Your task to perform on an android device: Go to CNN.com Image 0: 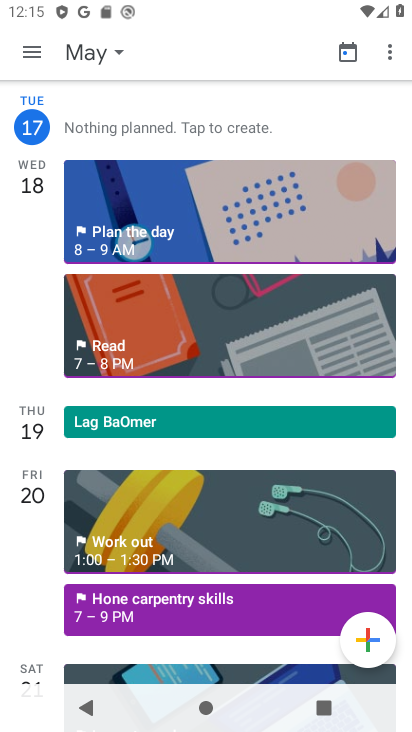
Step 0: press home button
Your task to perform on an android device: Go to CNN.com Image 1: 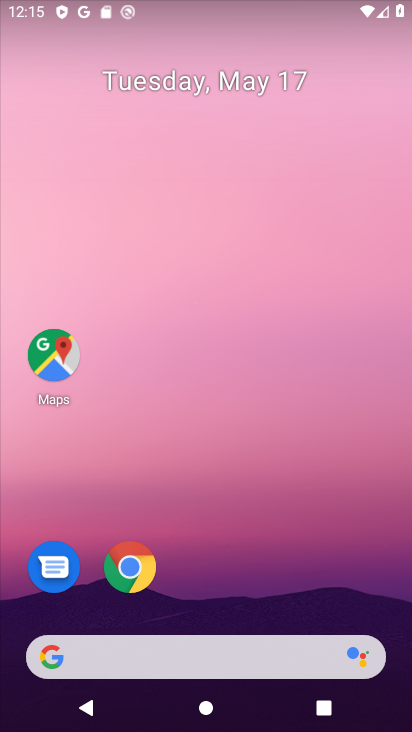
Step 1: drag from (306, 569) to (362, 22)
Your task to perform on an android device: Go to CNN.com Image 2: 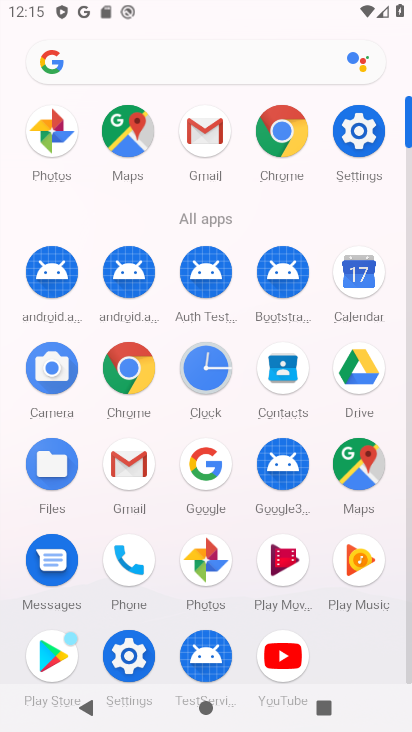
Step 2: click (292, 155)
Your task to perform on an android device: Go to CNN.com Image 3: 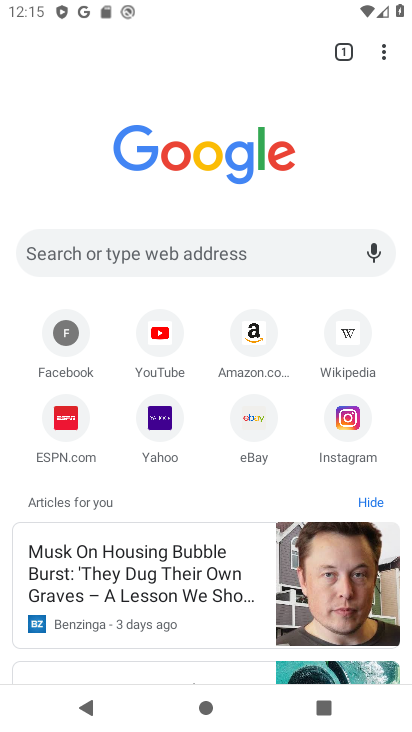
Step 3: click (250, 256)
Your task to perform on an android device: Go to CNN.com Image 4: 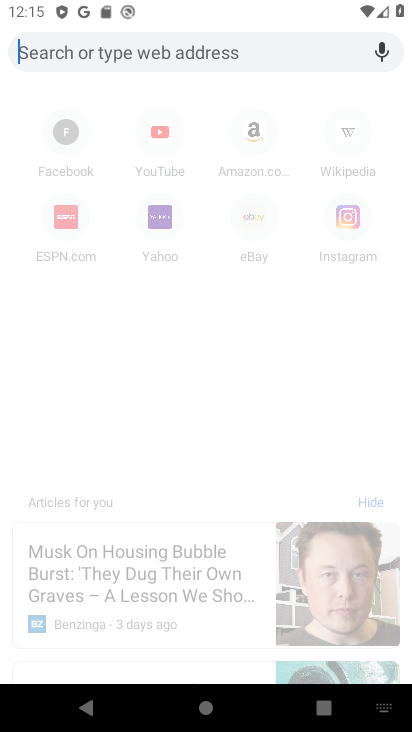
Step 4: type "cnn.com"
Your task to perform on an android device: Go to CNN.com Image 5: 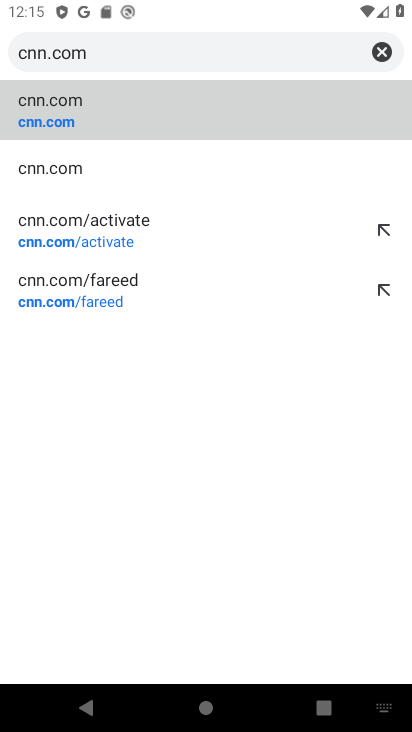
Step 5: click (195, 116)
Your task to perform on an android device: Go to CNN.com Image 6: 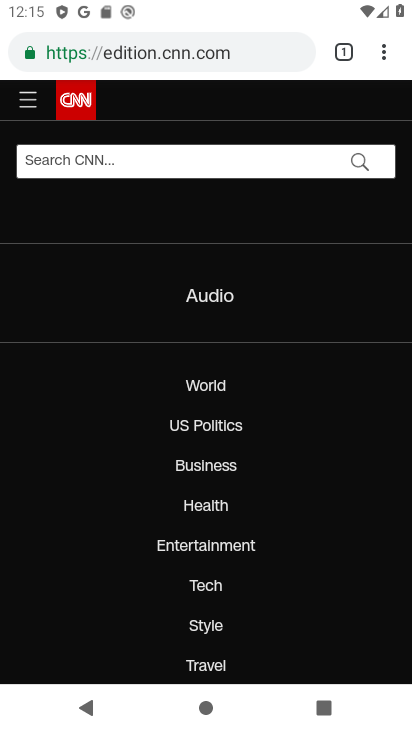
Step 6: task complete